Your task to perform on an android device: turn notification dots off Image 0: 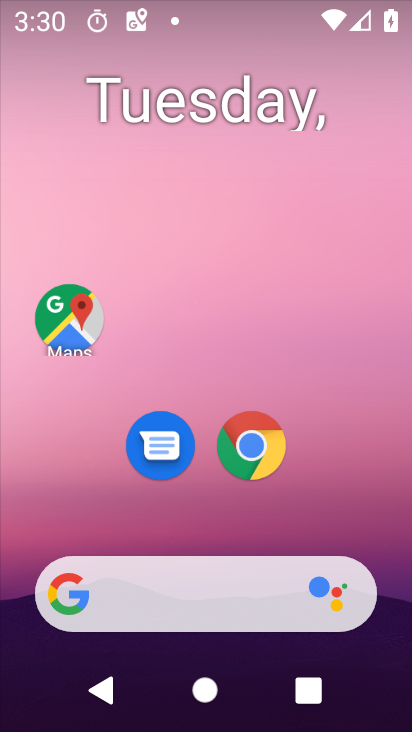
Step 0: drag from (252, 570) to (115, 10)
Your task to perform on an android device: turn notification dots off Image 1: 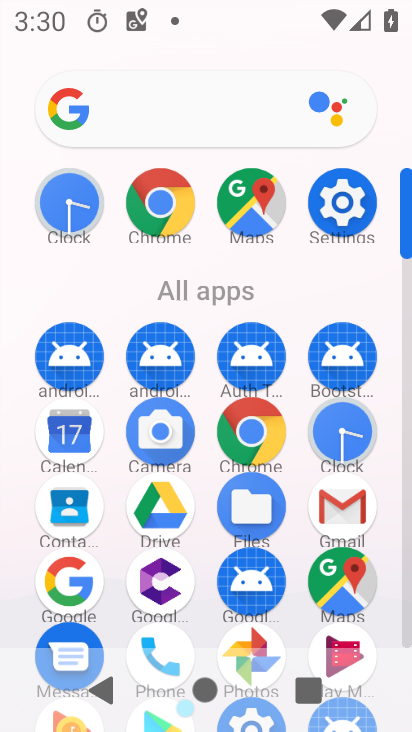
Step 1: click (348, 189)
Your task to perform on an android device: turn notification dots off Image 2: 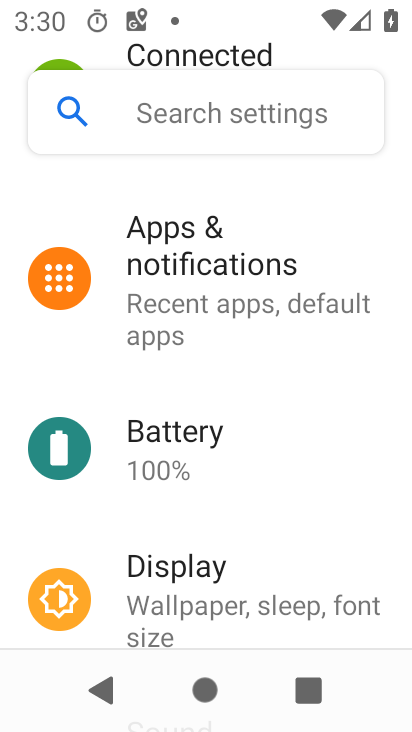
Step 2: click (205, 268)
Your task to perform on an android device: turn notification dots off Image 3: 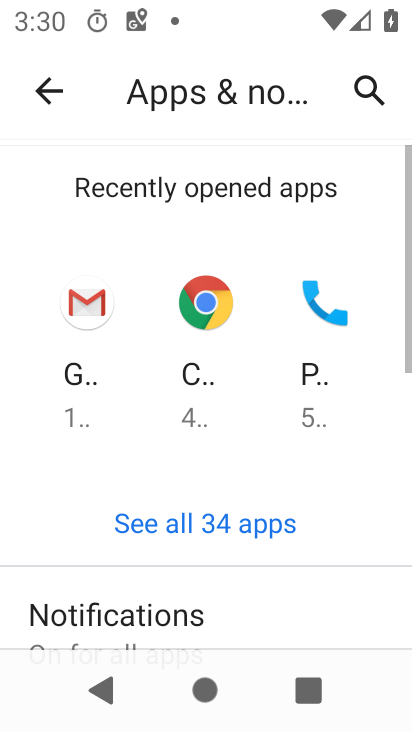
Step 3: drag from (258, 583) to (230, 39)
Your task to perform on an android device: turn notification dots off Image 4: 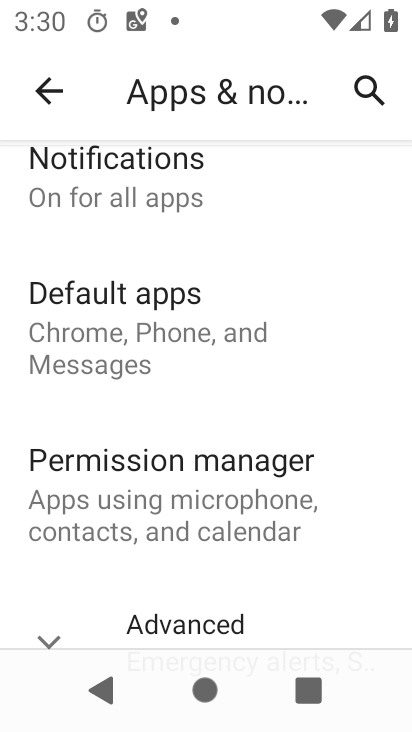
Step 4: click (143, 154)
Your task to perform on an android device: turn notification dots off Image 5: 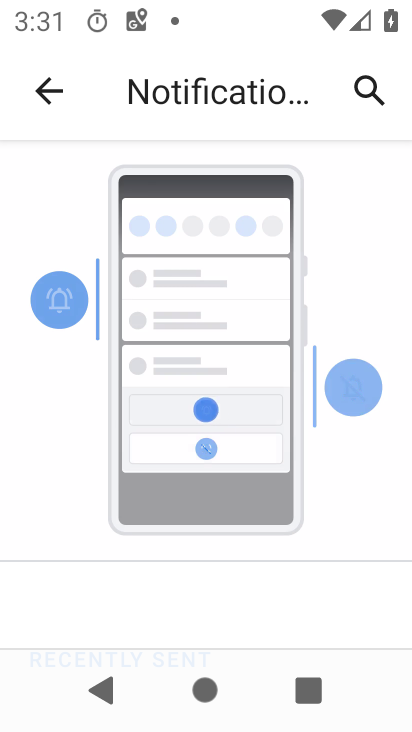
Step 5: drag from (262, 531) to (204, 23)
Your task to perform on an android device: turn notification dots off Image 6: 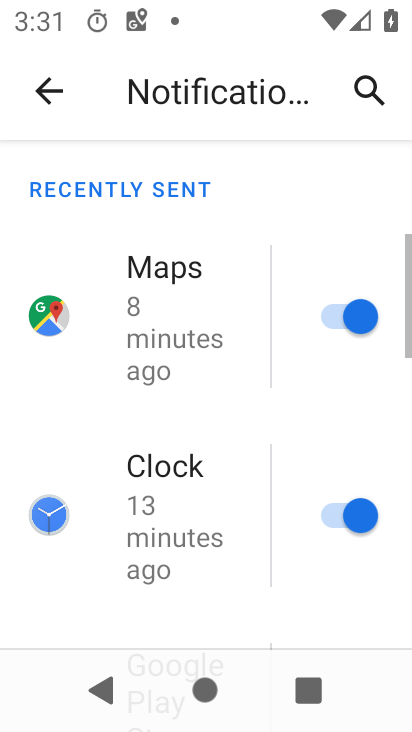
Step 6: drag from (225, 592) to (180, 43)
Your task to perform on an android device: turn notification dots off Image 7: 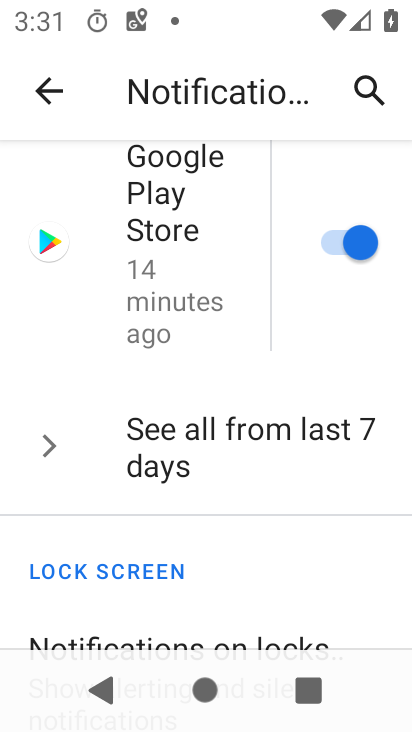
Step 7: drag from (240, 588) to (179, 81)
Your task to perform on an android device: turn notification dots off Image 8: 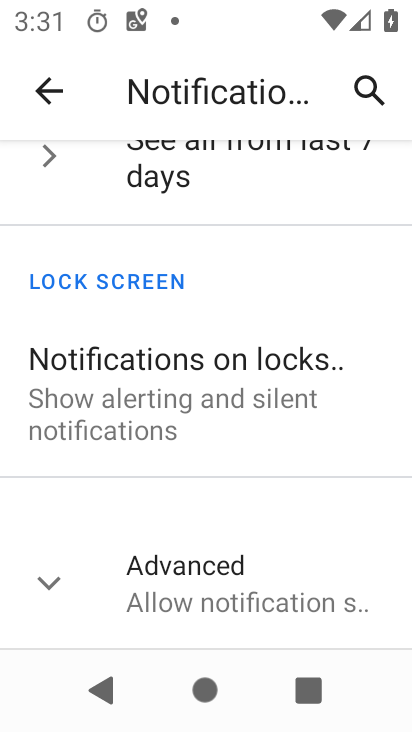
Step 8: click (223, 614)
Your task to perform on an android device: turn notification dots off Image 9: 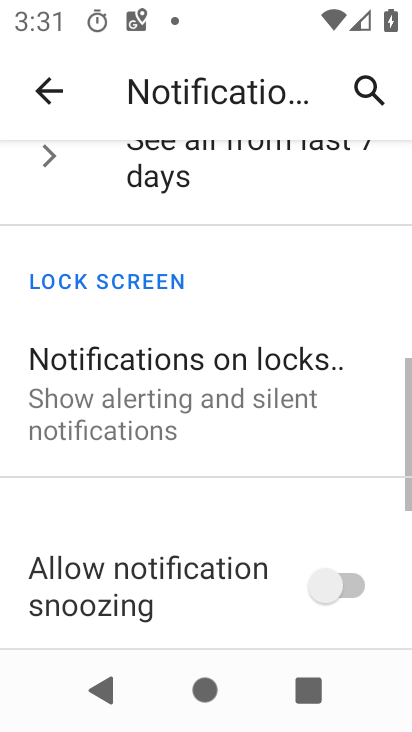
Step 9: drag from (222, 615) to (209, 131)
Your task to perform on an android device: turn notification dots off Image 10: 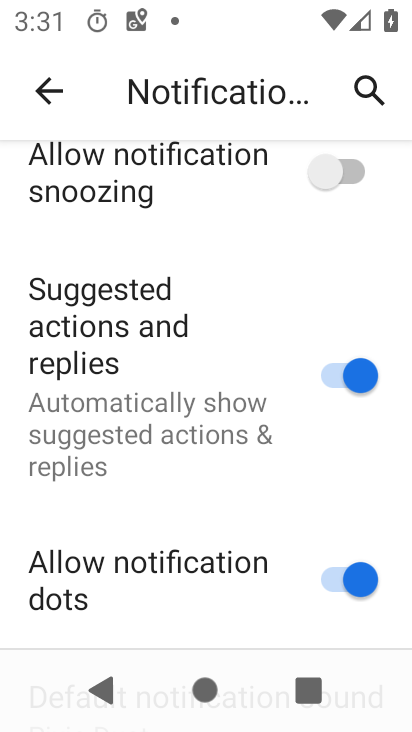
Step 10: drag from (254, 540) to (194, 162)
Your task to perform on an android device: turn notification dots off Image 11: 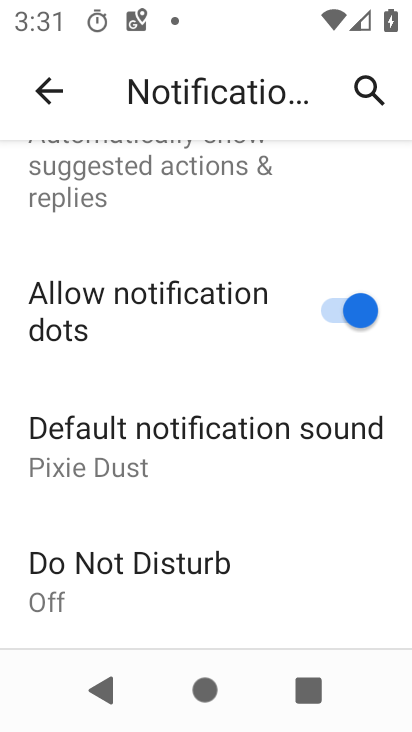
Step 11: click (360, 312)
Your task to perform on an android device: turn notification dots off Image 12: 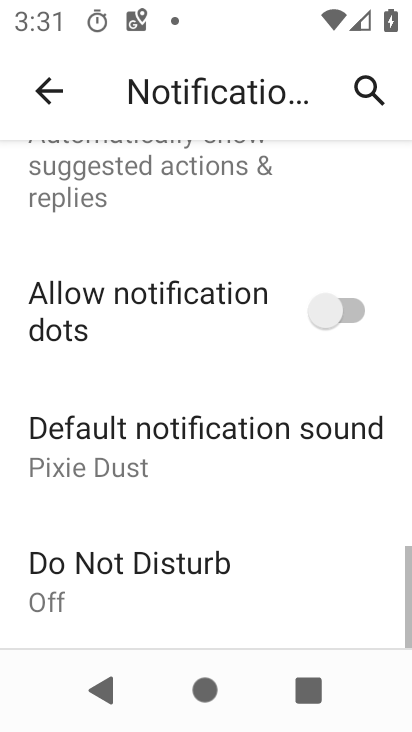
Step 12: task complete